Your task to perform on an android device: Open Chrome and go to the settings page Image 0: 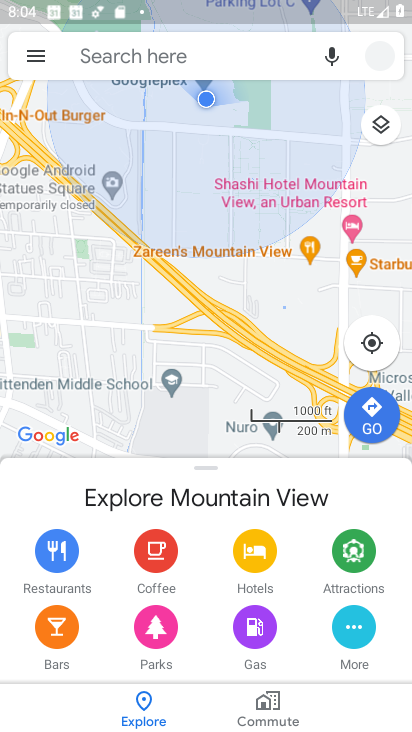
Step 0: press home button
Your task to perform on an android device: Open Chrome and go to the settings page Image 1: 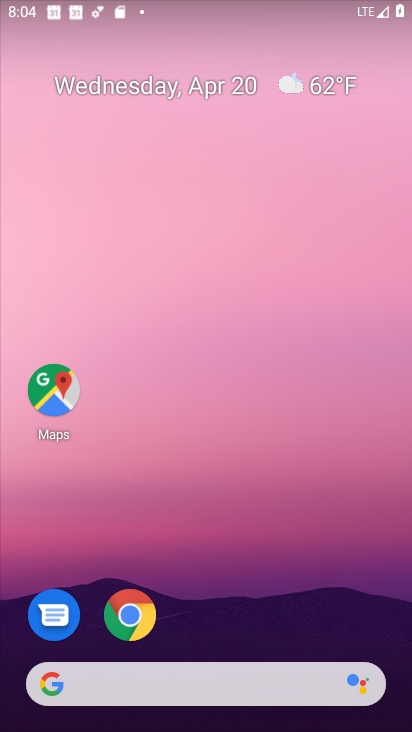
Step 1: click (136, 607)
Your task to perform on an android device: Open Chrome and go to the settings page Image 2: 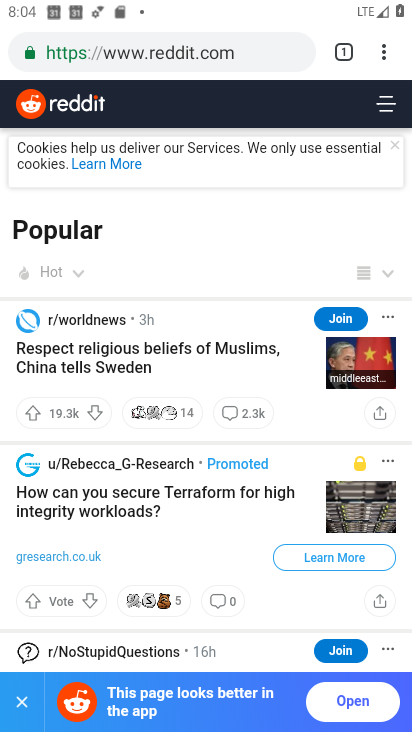
Step 2: click (382, 57)
Your task to perform on an android device: Open Chrome and go to the settings page Image 3: 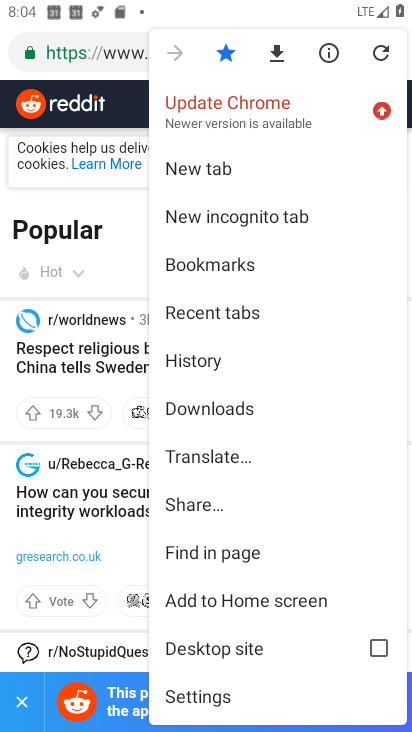
Step 3: click (211, 700)
Your task to perform on an android device: Open Chrome and go to the settings page Image 4: 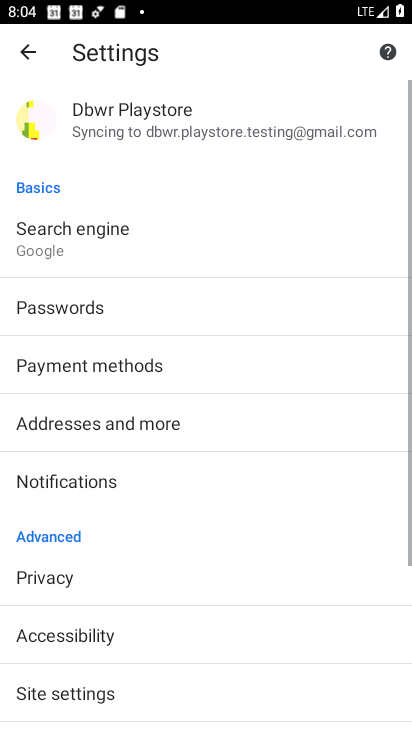
Step 4: task complete